Your task to perform on an android device: delete a single message in the gmail app Image 0: 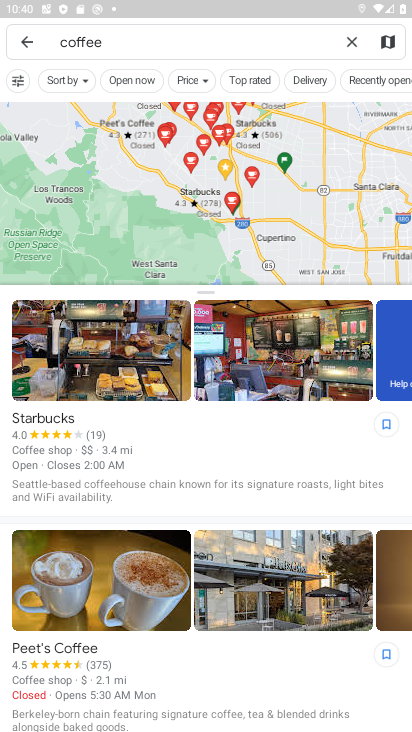
Step 0: click (345, 44)
Your task to perform on an android device: delete a single message in the gmail app Image 1: 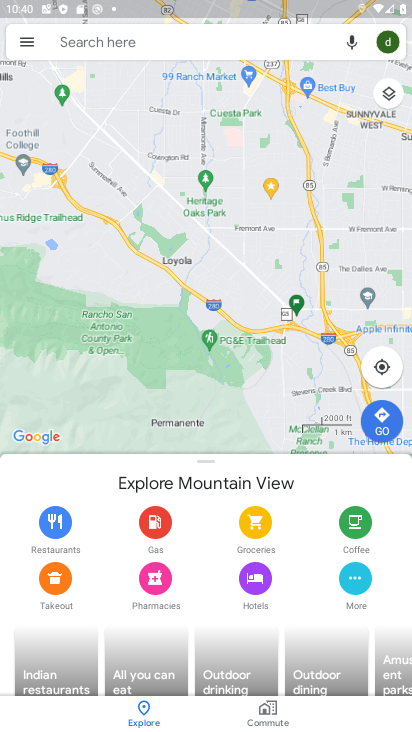
Step 1: press home button
Your task to perform on an android device: delete a single message in the gmail app Image 2: 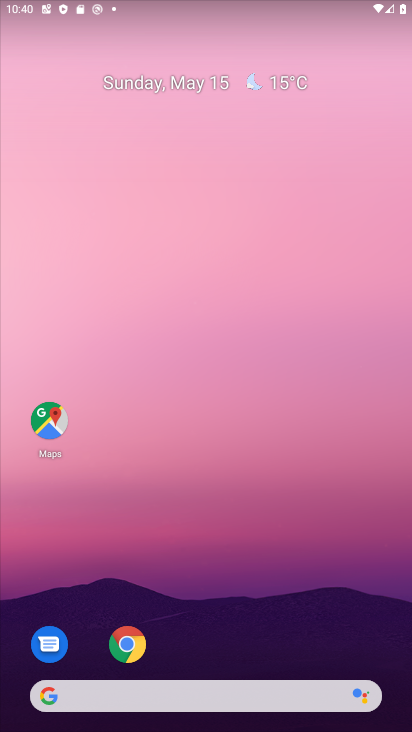
Step 2: drag from (228, 659) to (237, 263)
Your task to perform on an android device: delete a single message in the gmail app Image 3: 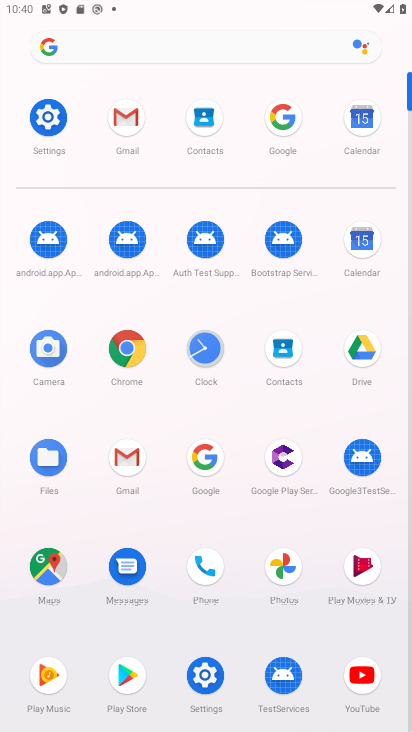
Step 3: click (127, 122)
Your task to perform on an android device: delete a single message in the gmail app Image 4: 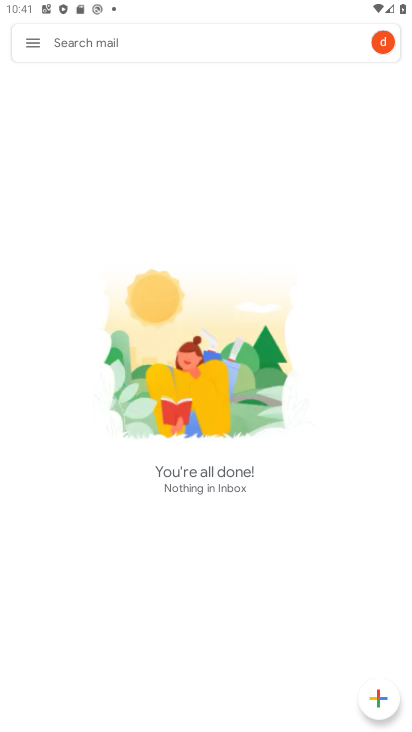
Step 4: task complete